Your task to perform on an android device: change the clock display to digital Image 0: 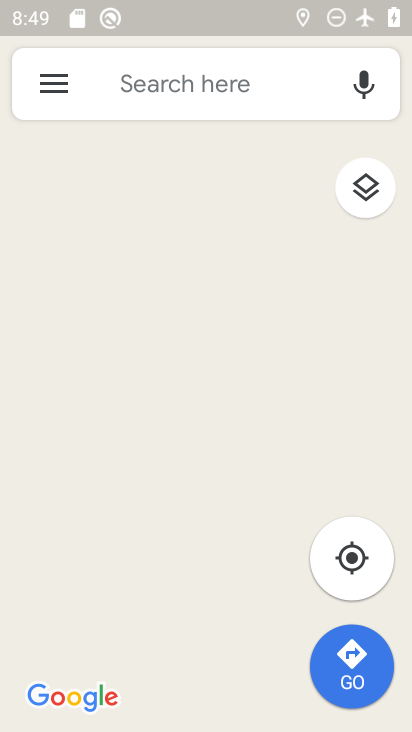
Step 0: press back button
Your task to perform on an android device: change the clock display to digital Image 1: 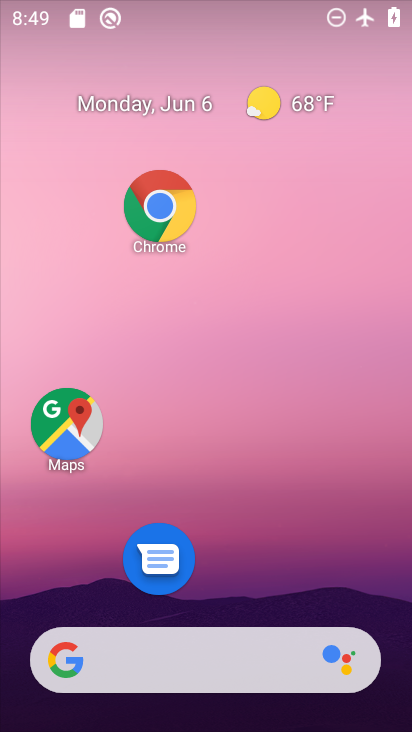
Step 1: press home button
Your task to perform on an android device: change the clock display to digital Image 2: 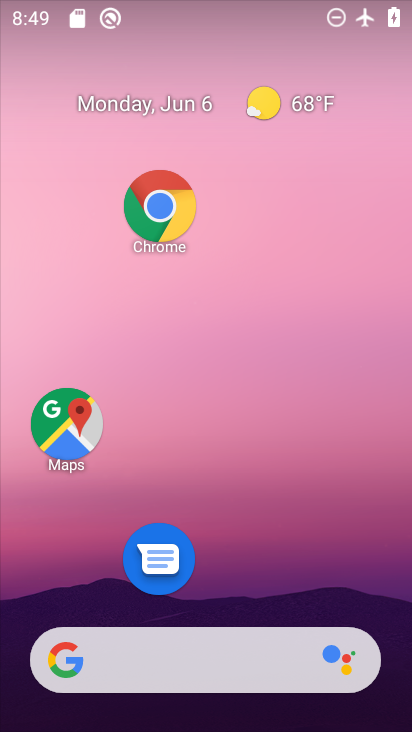
Step 2: drag from (278, 656) to (192, 207)
Your task to perform on an android device: change the clock display to digital Image 3: 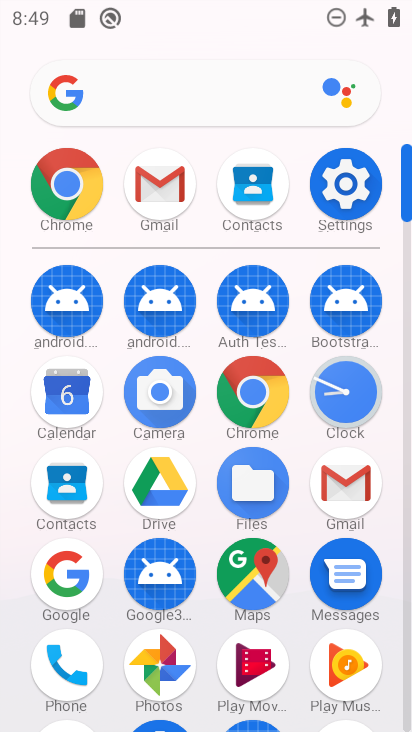
Step 3: click (349, 396)
Your task to perform on an android device: change the clock display to digital Image 4: 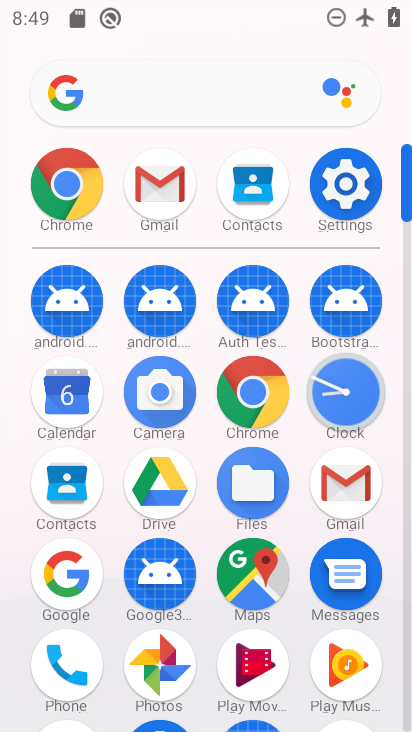
Step 4: click (348, 395)
Your task to perform on an android device: change the clock display to digital Image 5: 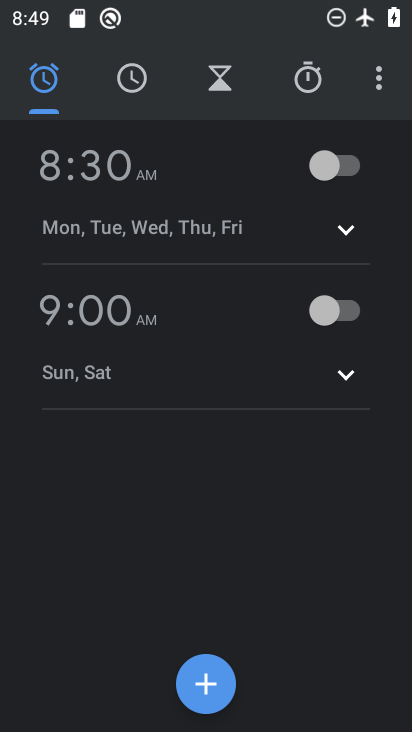
Step 5: click (376, 81)
Your task to perform on an android device: change the clock display to digital Image 6: 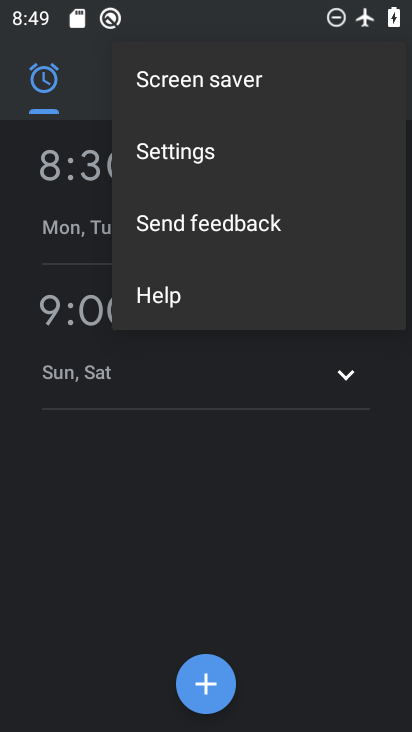
Step 6: click (182, 151)
Your task to perform on an android device: change the clock display to digital Image 7: 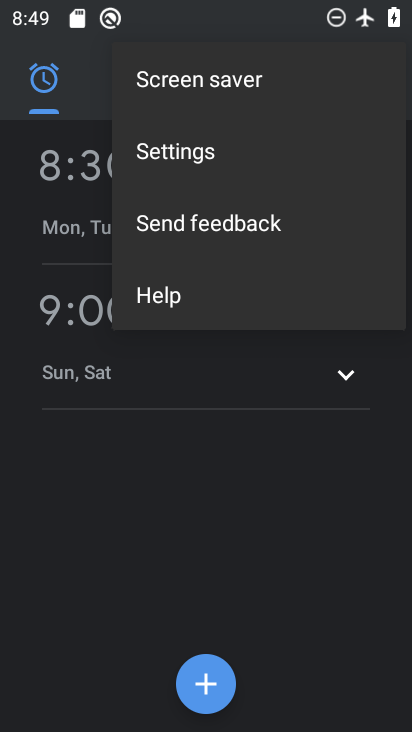
Step 7: click (182, 151)
Your task to perform on an android device: change the clock display to digital Image 8: 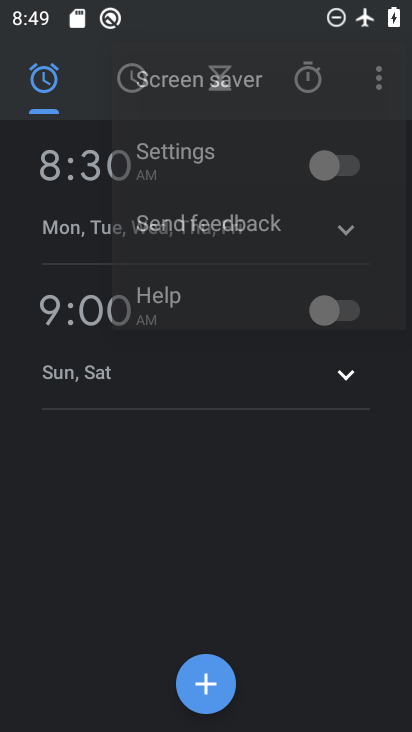
Step 8: click (181, 153)
Your task to perform on an android device: change the clock display to digital Image 9: 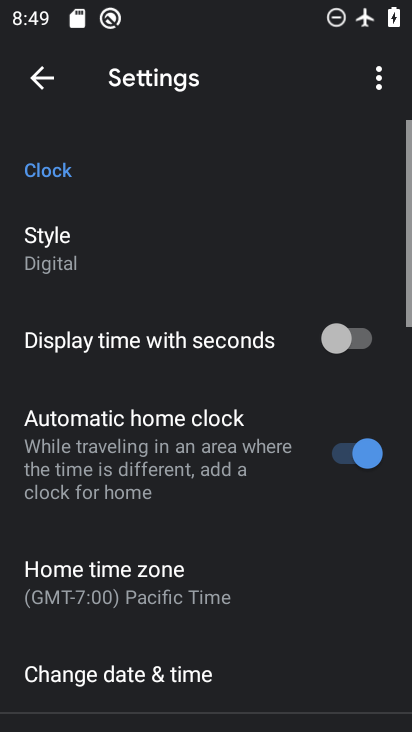
Step 9: click (182, 153)
Your task to perform on an android device: change the clock display to digital Image 10: 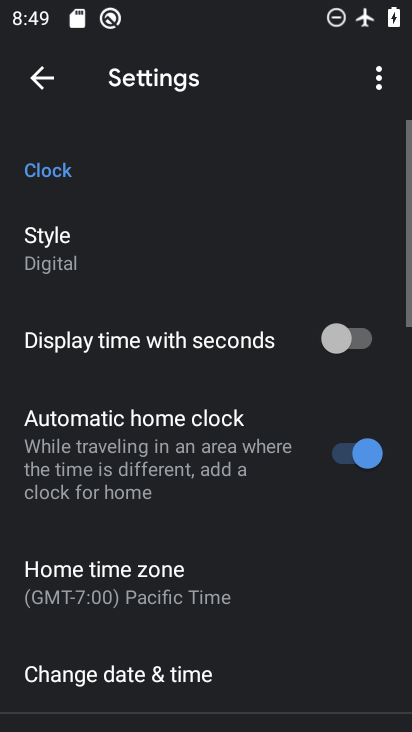
Step 10: click (101, 253)
Your task to perform on an android device: change the clock display to digital Image 11: 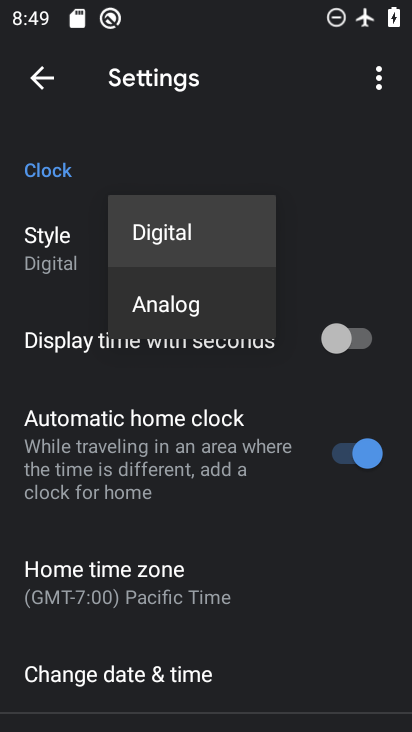
Step 11: click (162, 226)
Your task to perform on an android device: change the clock display to digital Image 12: 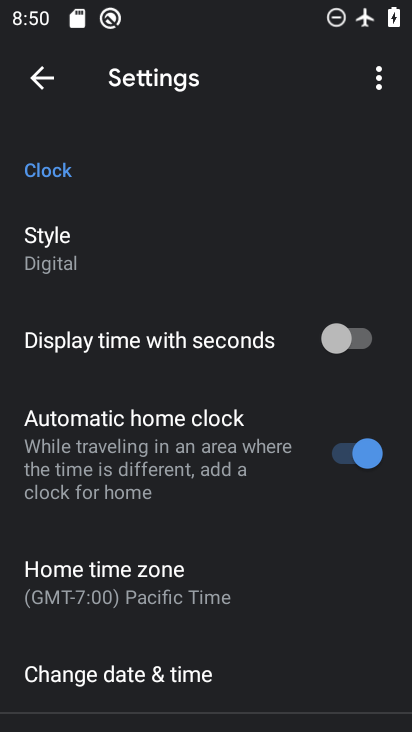
Step 12: task complete